Your task to perform on an android device: toggle notification dots Image 0: 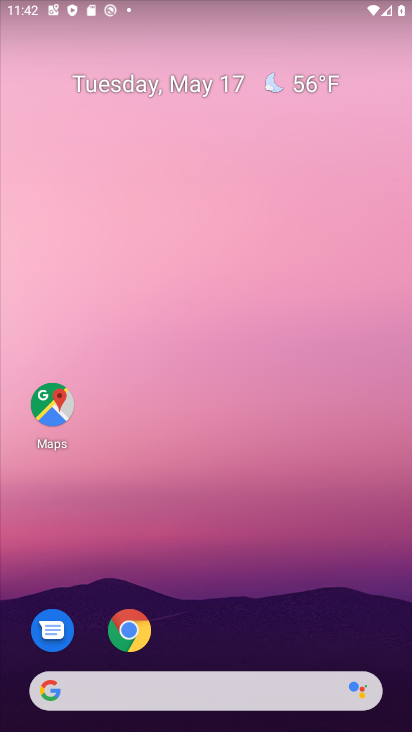
Step 0: drag from (290, 546) to (286, 143)
Your task to perform on an android device: toggle notification dots Image 1: 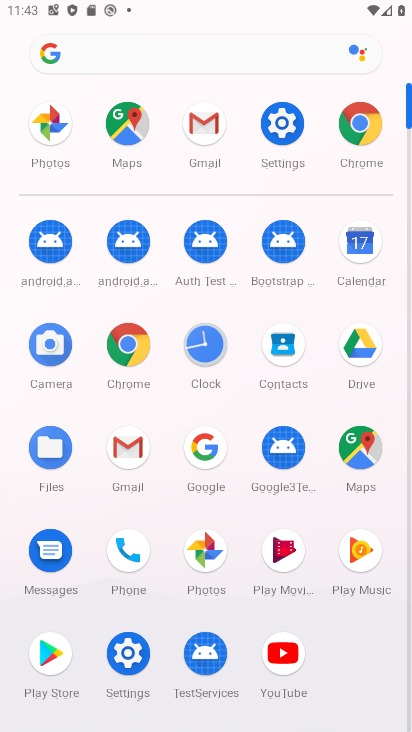
Step 1: click (127, 660)
Your task to perform on an android device: toggle notification dots Image 2: 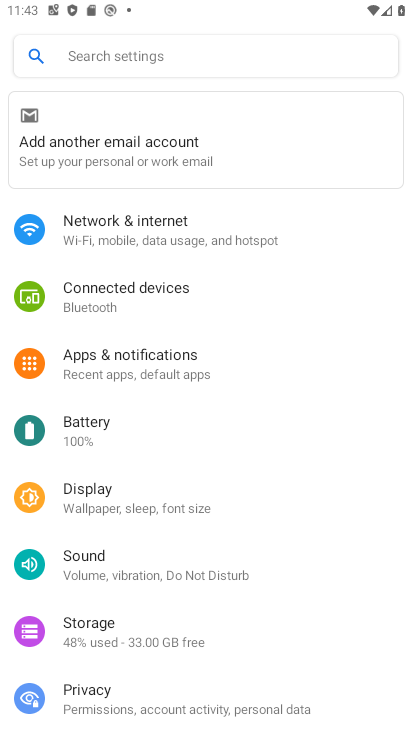
Step 2: click (125, 379)
Your task to perform on an android device: toggle notification dots Image 3: 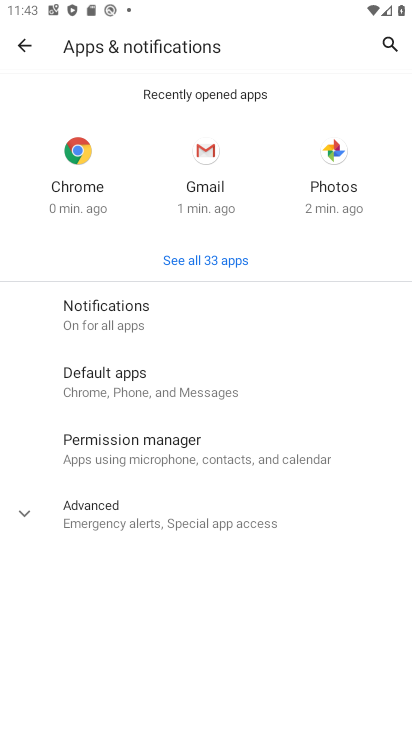
Step 3: click (146, 321)
Your task to perform on an android device: toggle notification dots Image 4: 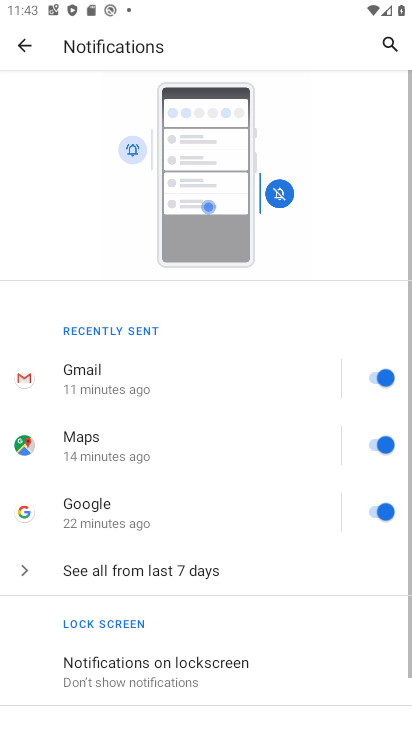
Step 4: drag from (285, 649) to (217, 317)
Your task to perform on an android device: toggle notification dots Image 5: 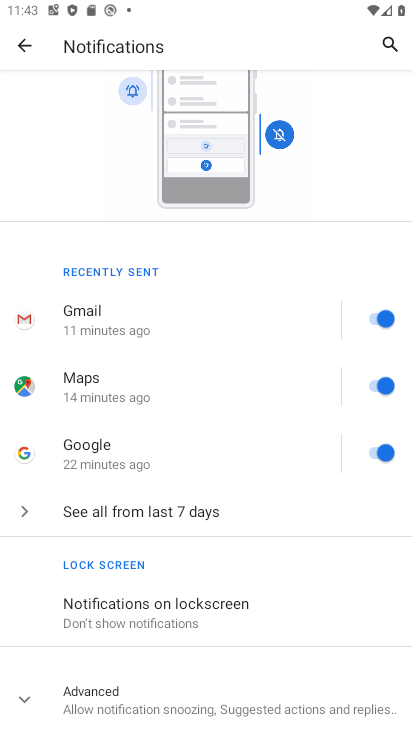
Step 5: click (281, 702)
Your task to perform on an android device: toggle notification dots Image 6: 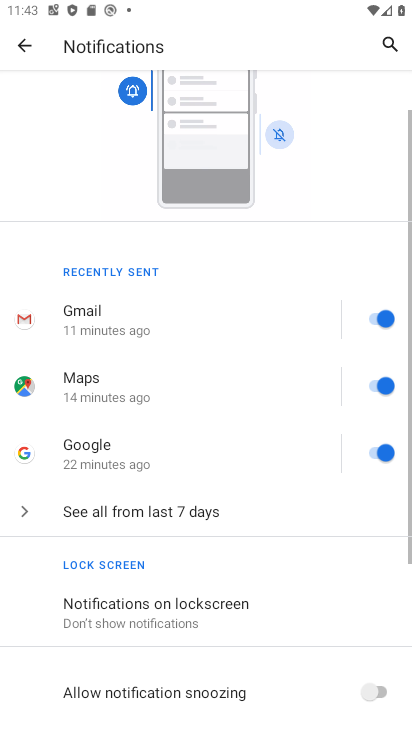
Step 6: drag from (280, 695) to (223, 398)
Your task to perform on an android device: toggle notification dots Image 7: 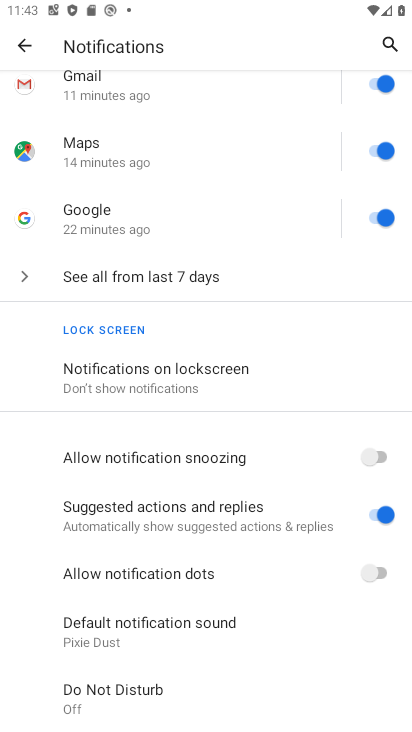
Step 7: click (383, 575)
Your task to perform on an android device: toggle notification dots Image 8: 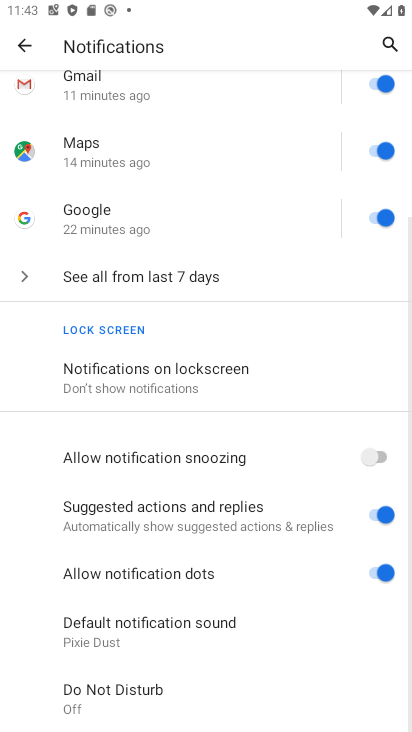
Step 8: task complete